Your task to perform on an android device: toggle pop-ups in chrome Image 0: 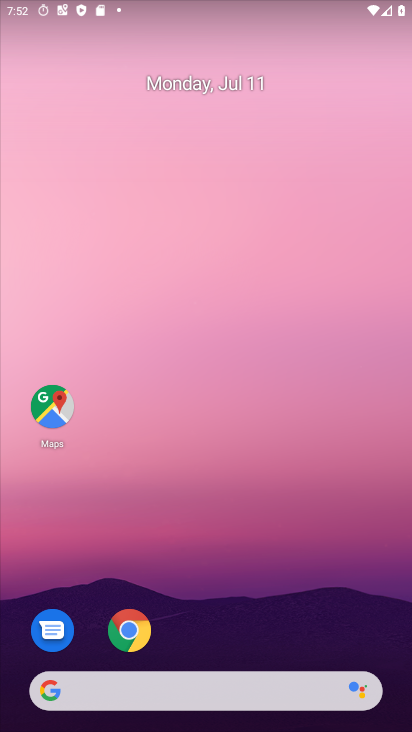
Step 0: click (136, 622)
Your task to perform on an android device: toggle pop-ups in chrome Image 1: 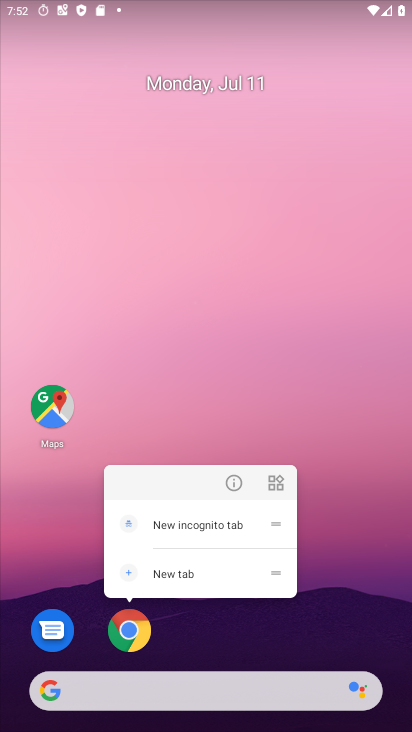
Step 1: click (133, 627)
Your task to perform on an android device: toggle pop-ups in chrome Image 2: 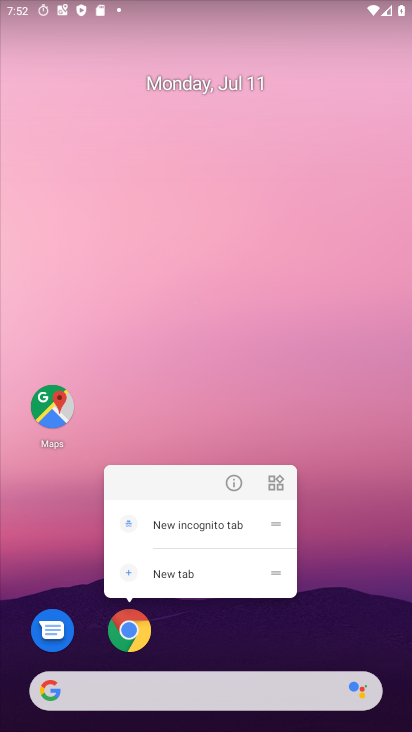
Step 2: click (133, 627)
Your task to perform on an android device: toggle pop-ups in chrome Image 3: 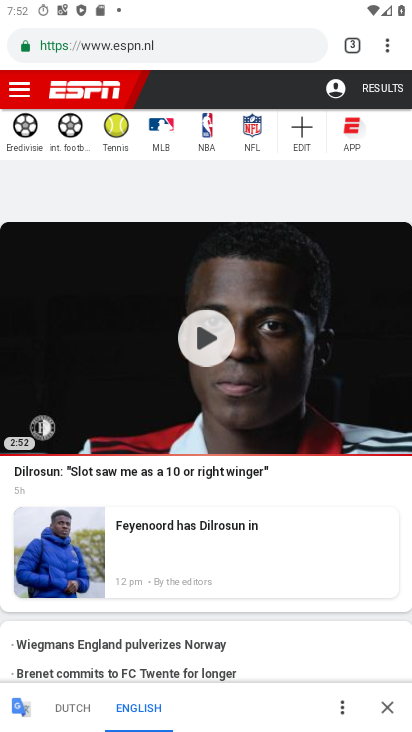
Step 3: drag from (390, 41) to (234, 561)
Your task to perform on an android device: toggle pop-ups in chrome Image 4: 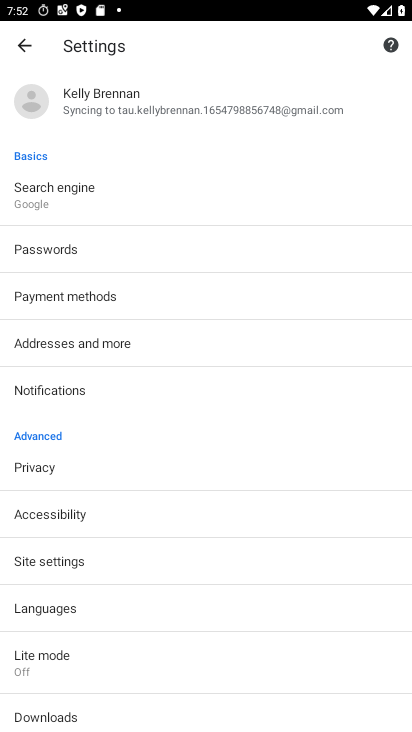
Step 4: click (41, 558)
Your task to perform on an android device: toggle pop-ups in chrome Image 5: 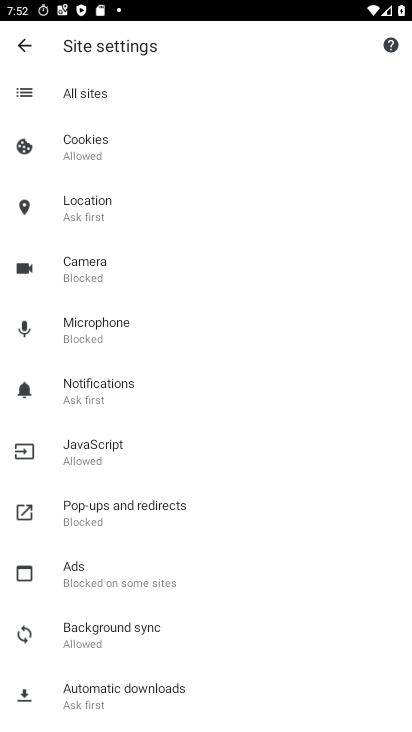
Step 5: click (111, 502)
Your task to perform on an android device: toggle pop-ups in chrome Image 6: 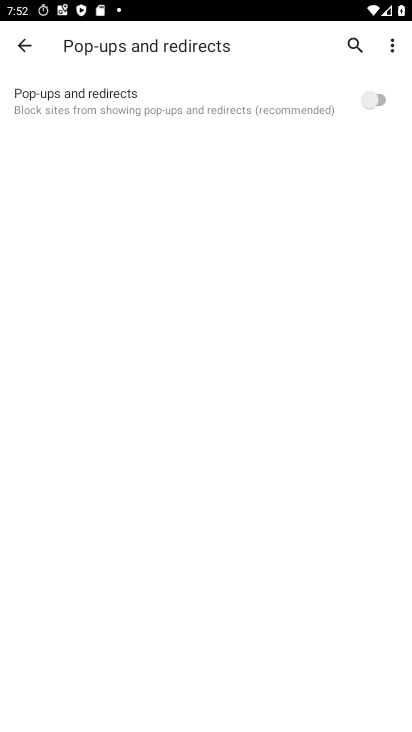
Step 6: click (377, 95)
Your task to perform on an android device: toggle pop-ups in chrome Image 7: 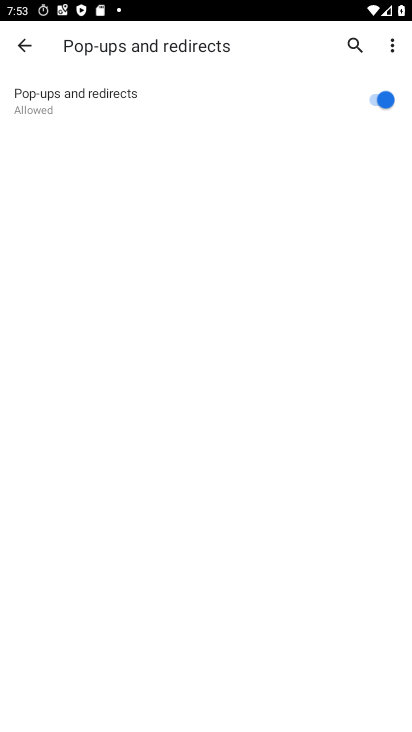
Step 7: task complete